Your task to perform on an android device: Open wifi settings Image 0: 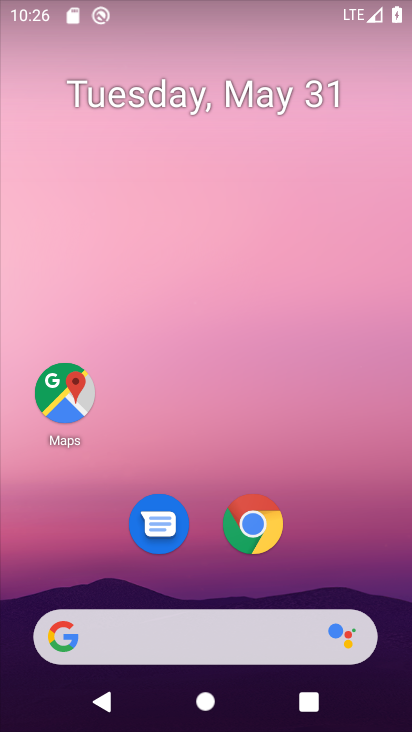
Step 0: drag from (317, 548) to (337, 19)
Your task to perform on an android device: Open wifi settings Image 1: 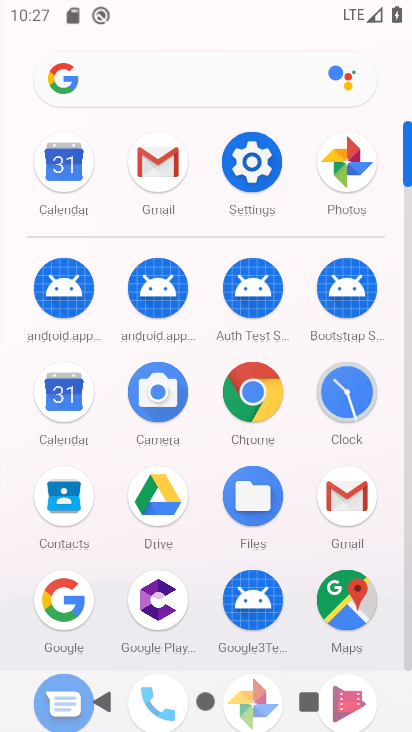
Step 1: click (266, 154)
Your task to perform on an android device: Open wifi settings Image 2: 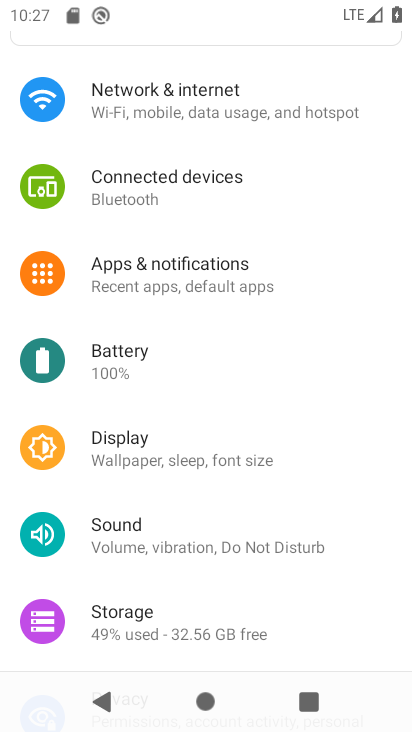
Step 2: click (248, 103)
Your task to perform on an android device: Open wifi settings Image 3: 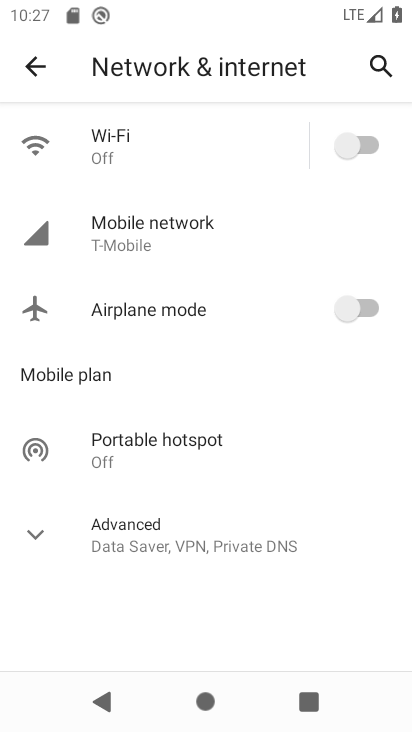
Step 3: click (233, 152)
Your task to perform on an android device: Open wifi settings Image 4: 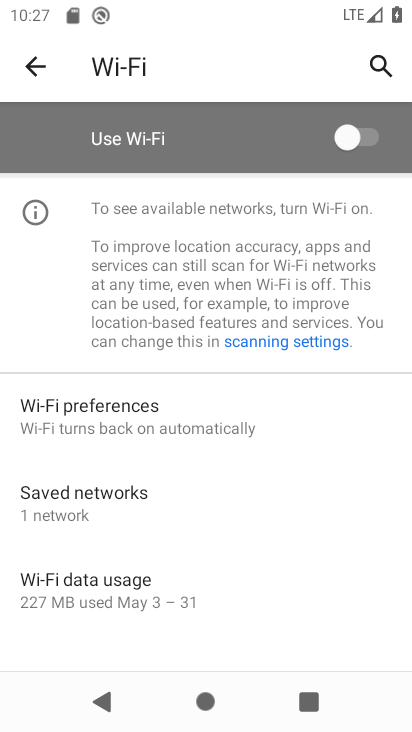
Step 4: task complete